Your task to perform on an android device: empty trash in the gmail app Image 0: 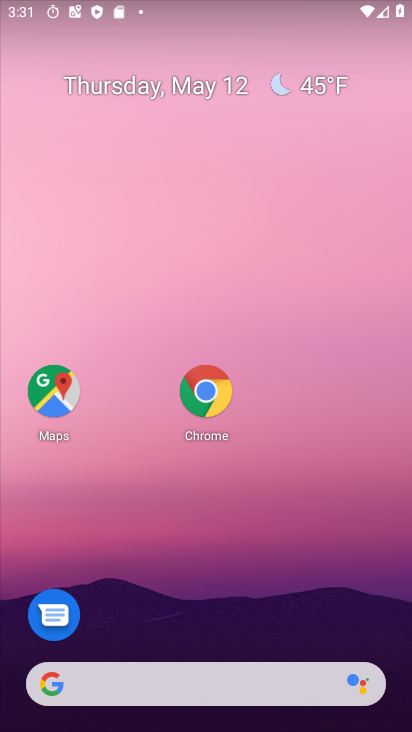
Step 0: drag from (220, 567) to (189, 118)
Your task to perform on an android device: empty trash in the gmail app Image 1: 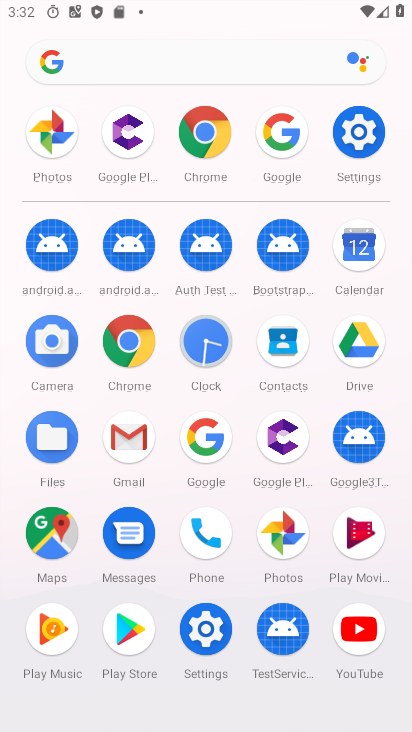
Step 1: click (128, 430)
Your task to perform on an android device: empty trash in the gmail app Image 2: 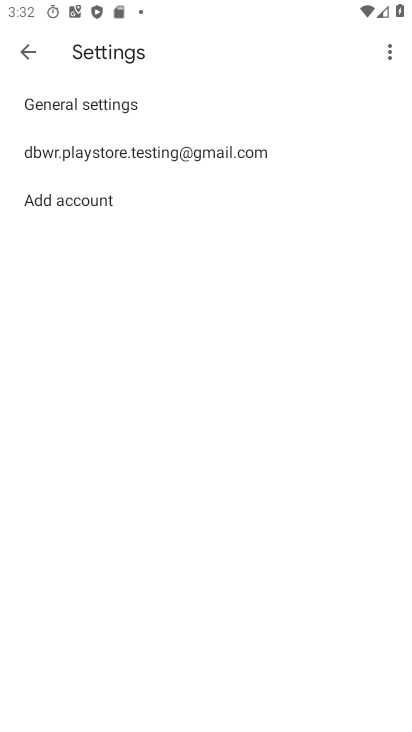
Step 2: click (128, 149)
Your task to perform on an android device: empty trash in the gmail app Image 3: 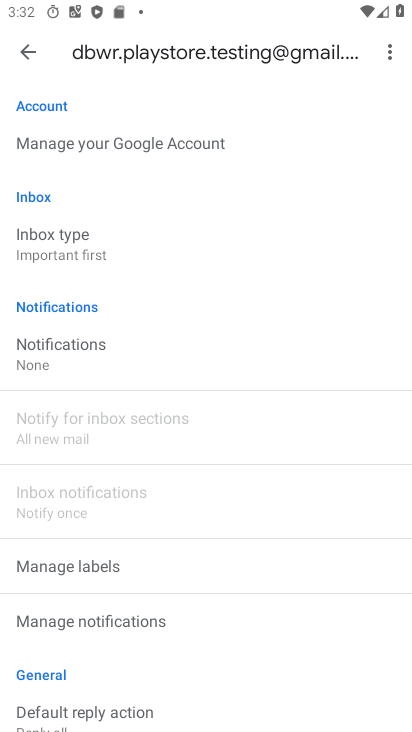
Step 3: press back button
Your task to perform on an android device: empty trash in the gmail app Image 4: 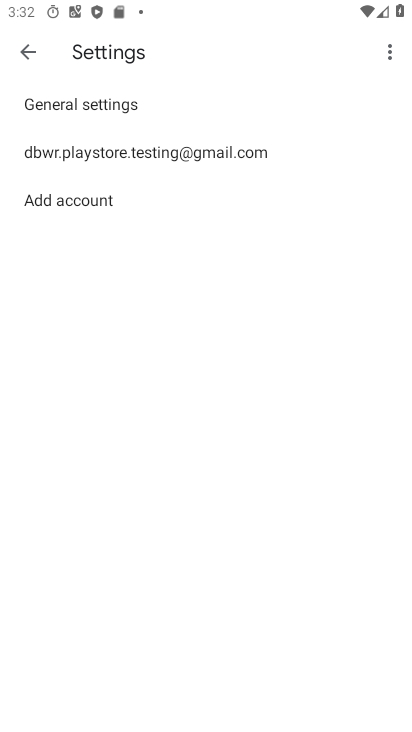
Step 4: press back button
Your task to perform on an android device: empty trash in the gmail app Image 5: 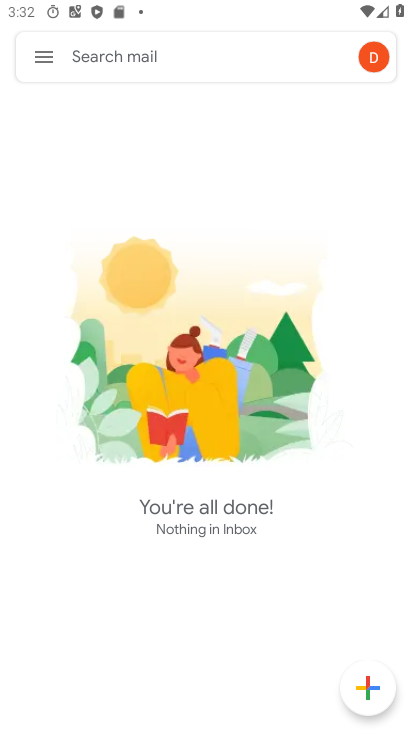
Step 5: click (48, 55)
Your task to perform on an android device: empty trash in the gmail app Image 6: 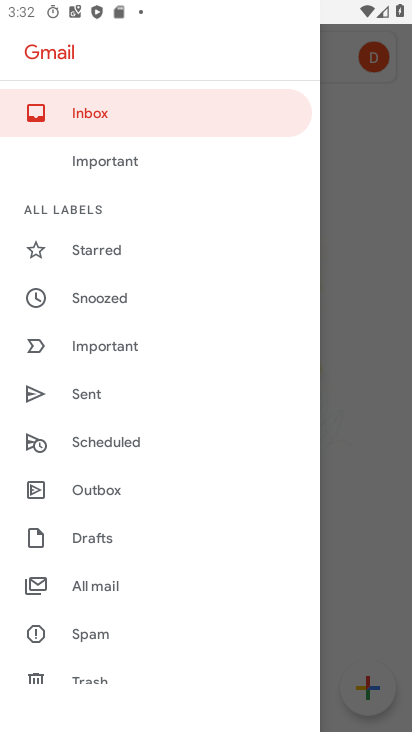
Step 6: drag from (122, 608) to (145, 450)
Your task to perform on an android device: empty trash in the gmail app Image 7: 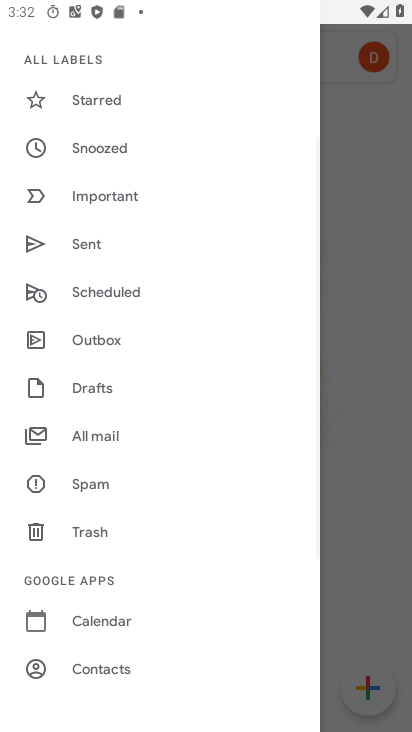
Step 7: click (100, 536)
Your task to perform on an android device: empty trash in the gmail app Image 8: 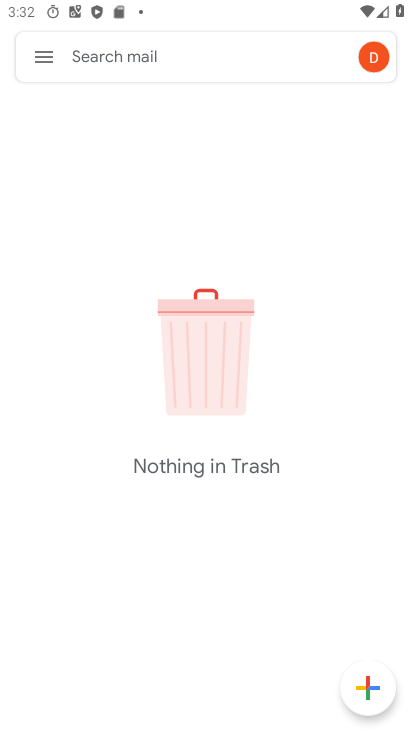
Step 8: task complete